Your task to perform on an android device: Open calendar and show me the third week of next month Image 0: 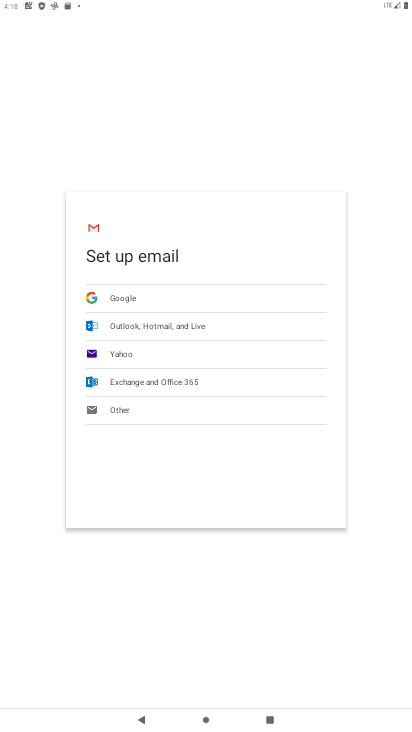
Step 0: press home button
Your task to perform on an android device: Open calendar and show me the third week of next month Image 1: 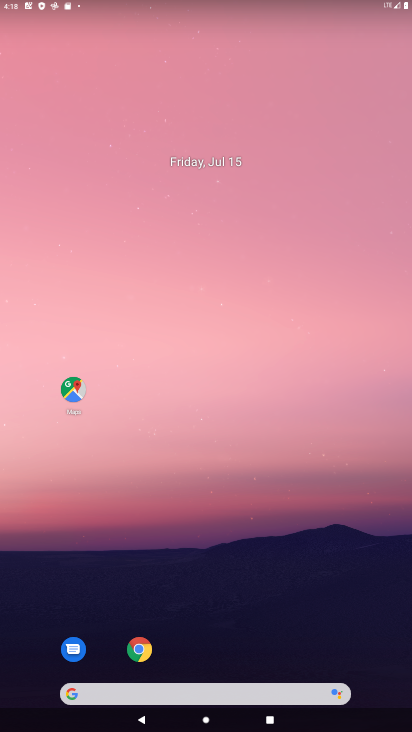
Step 1: drag from (368, 621) to (274, 16)
Your task to perform on an android device: Open calendar and show me the third week of next month Image 2: 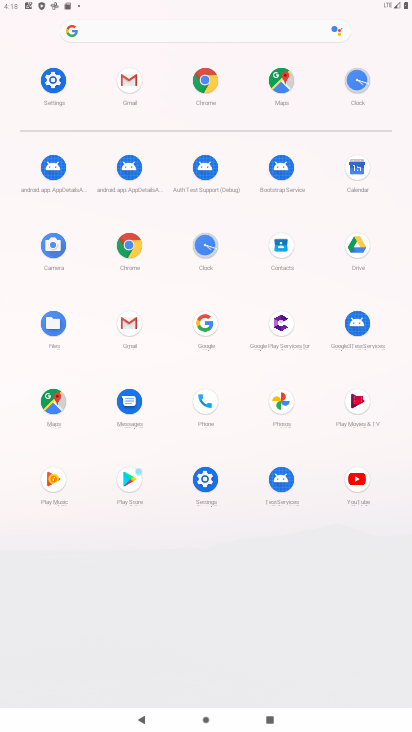
Step 2: click (363, 168)
Your task to perform on an android device: Open calendar and show me the third week of next month Image 3: 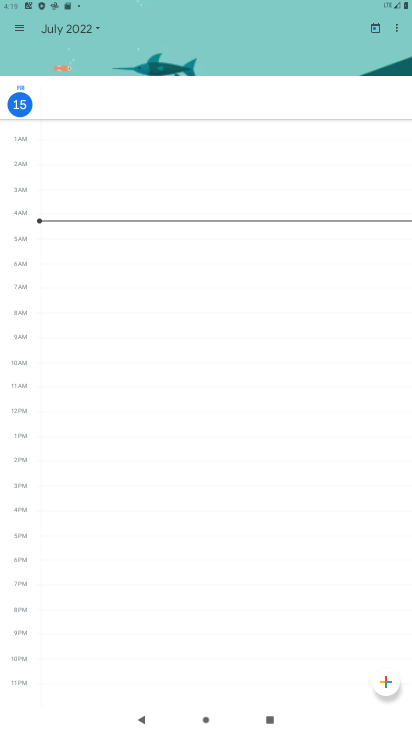
Step 3: click (64, 27)
Your task to perform on an android device: Open calendar and show me the third week of next month Image 4: 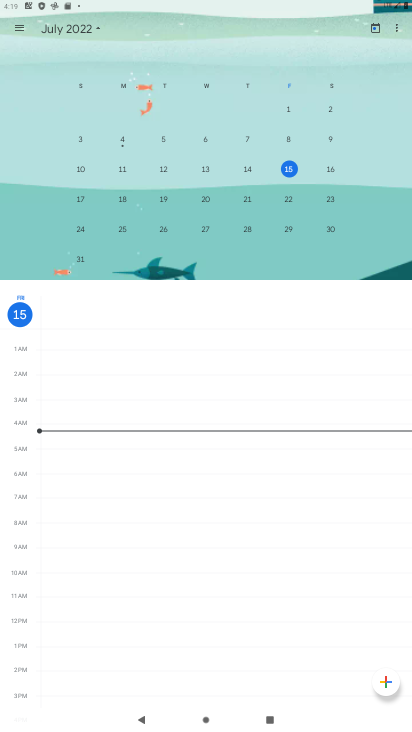
Step 4: drag from (330, 221) to (93, 200)
Your task to perform on an android device: Open calendar and show me the third week of next month Image 5: 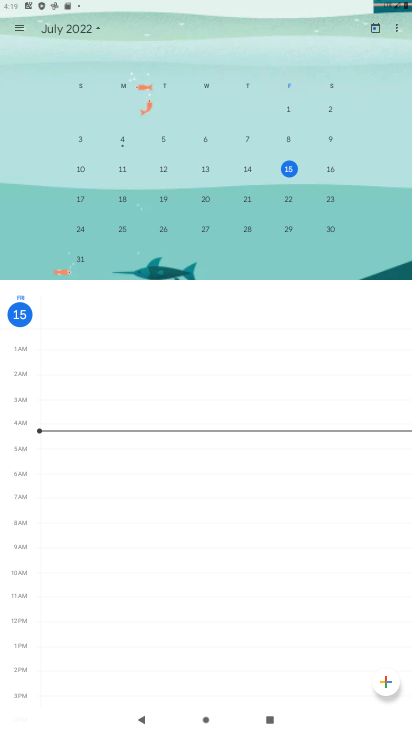
Step 5: click (156, 196)
Your task to perform on an android device: Open calendar and show me the third week of next month Image 6: 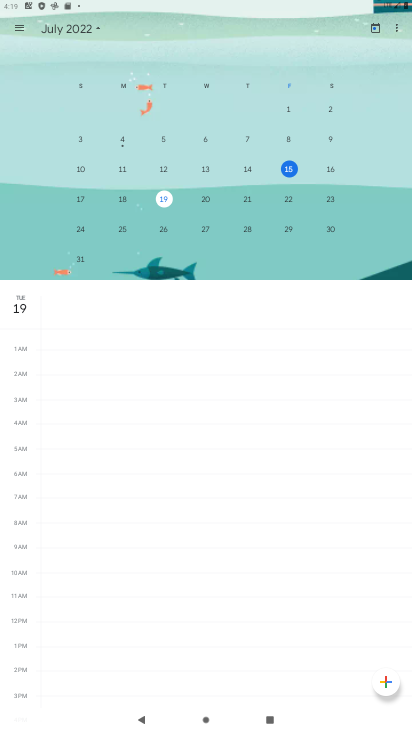
Step 6: click (19, 21)
Your task to perform on an android device: Open calendar and show me the third week of next month Image 7: 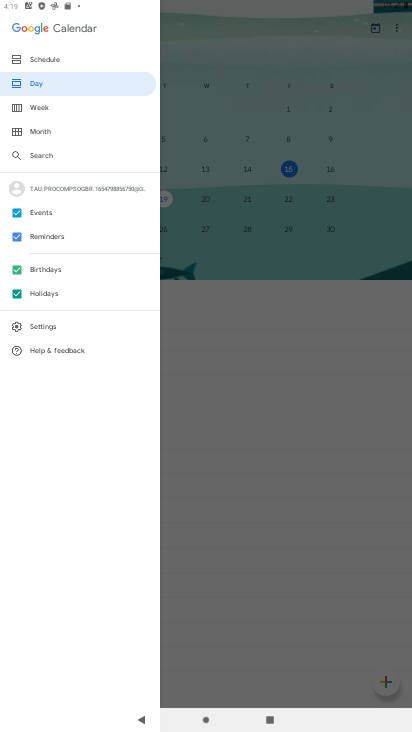
Step 7: click (261, 75)
Your task to perform on an android device: Open calendar and show me the third week of next month Image 8: 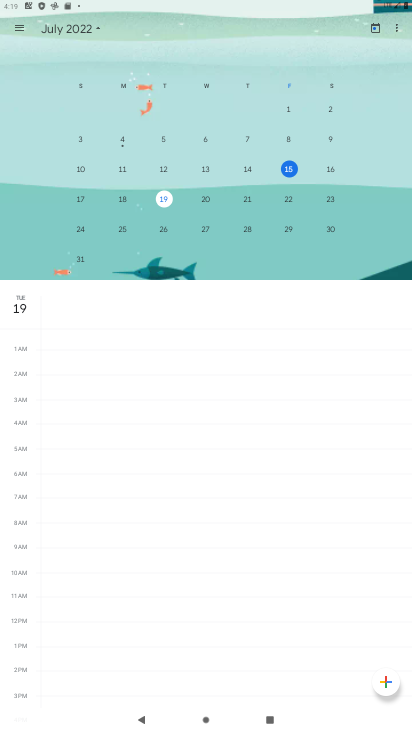
Step 8: click (21, 30)
Your task to perform on an android device: Open calendar and show me the third week of next month Image 9: 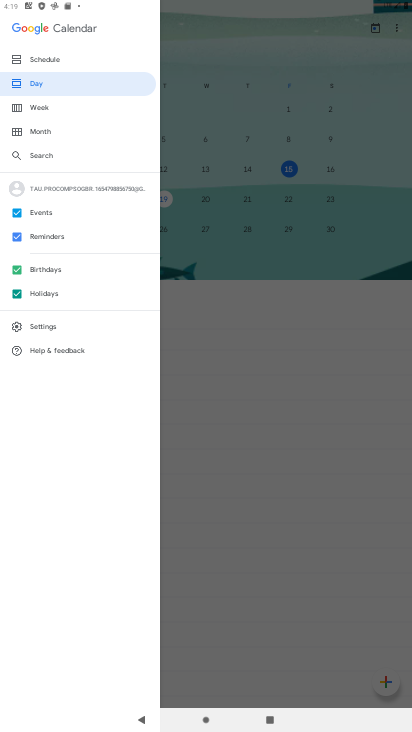
Step 9: click (39, 107)
Your task to perform on an android device: Open calendar and show me the third week of next month Image 10: 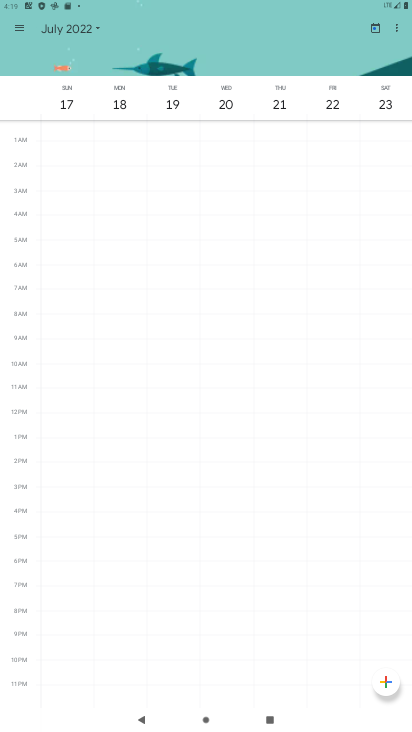
Step 10: task complete